Your task to perform on an android device: Search for Mexican restaurants on Maps Image 0: 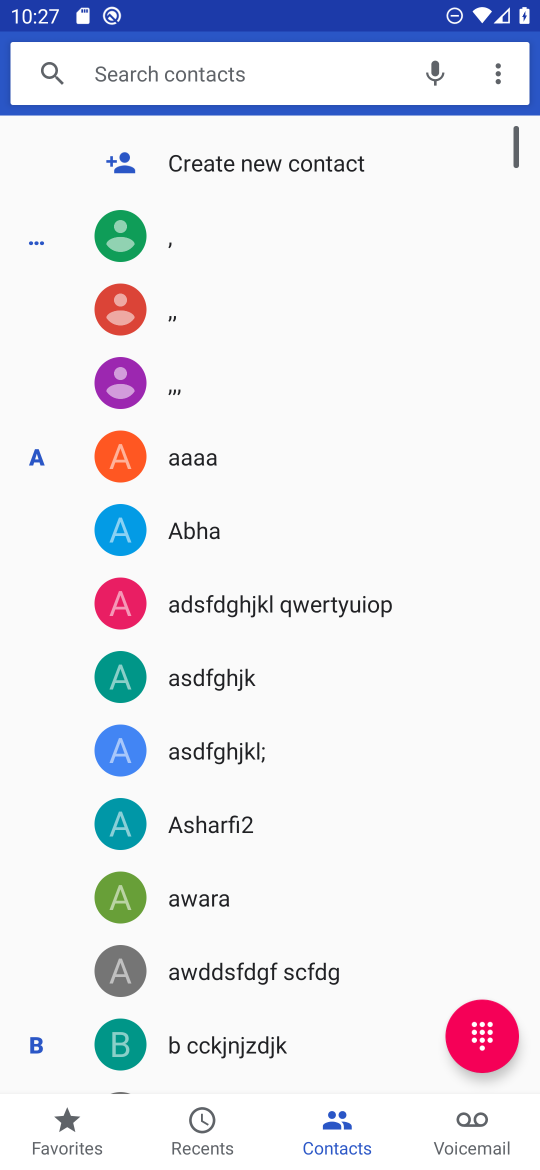
Step 0: press home button
Your task to perform on an android device: Search for Mexican restaurants on Maps Image 1: 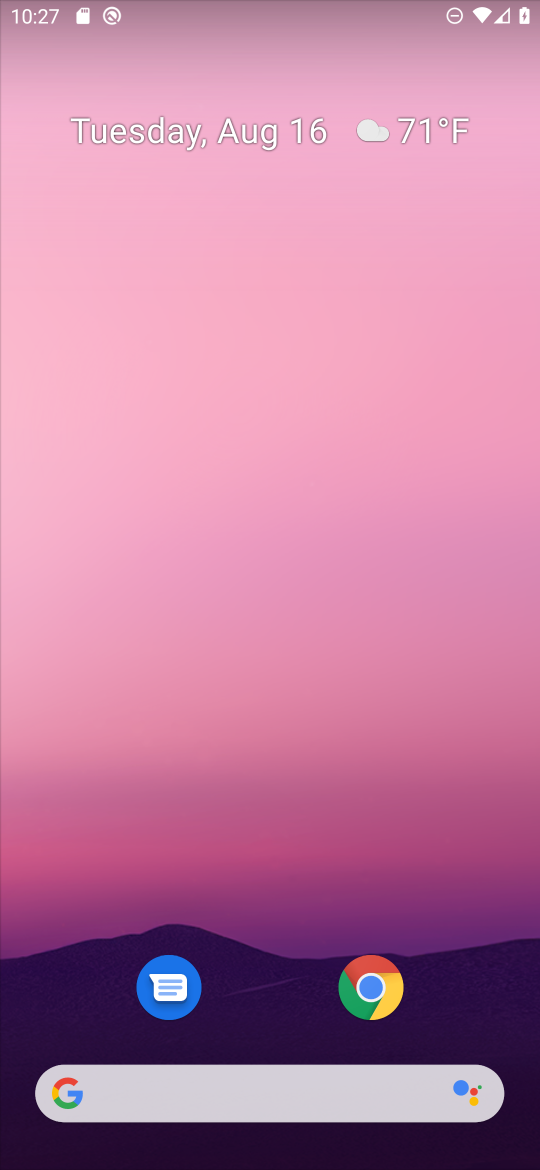
Step 1: click (140, 1102)
Your task to perform on an android device: Search for Mexican restaurants on Maps Image 2: 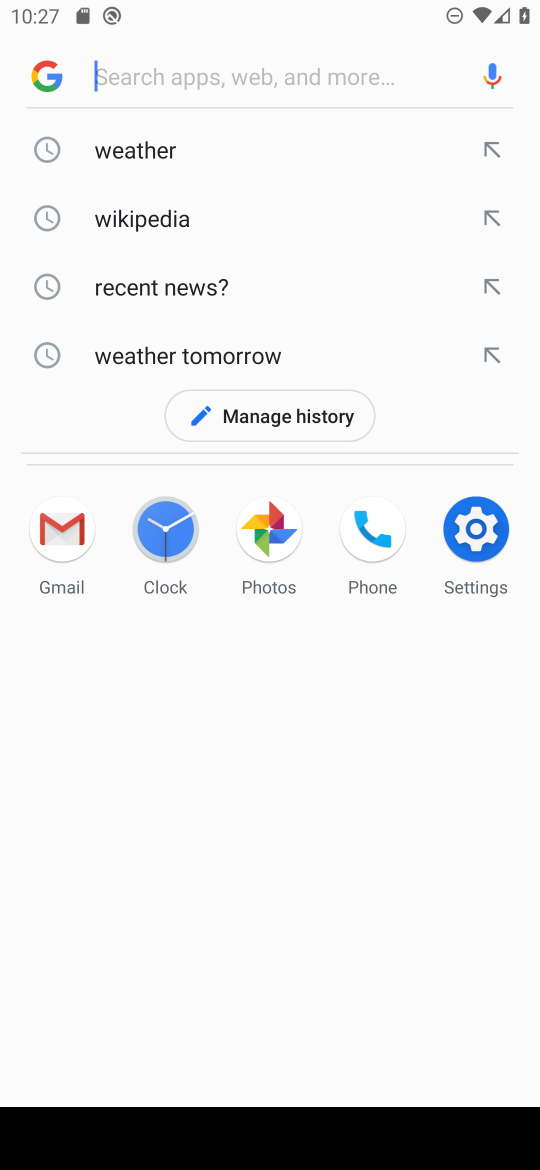
Step 2: type "Mexican restaurants"
Your task to perform on an android device: Search for Mexican restaurants on Maps Image 3: 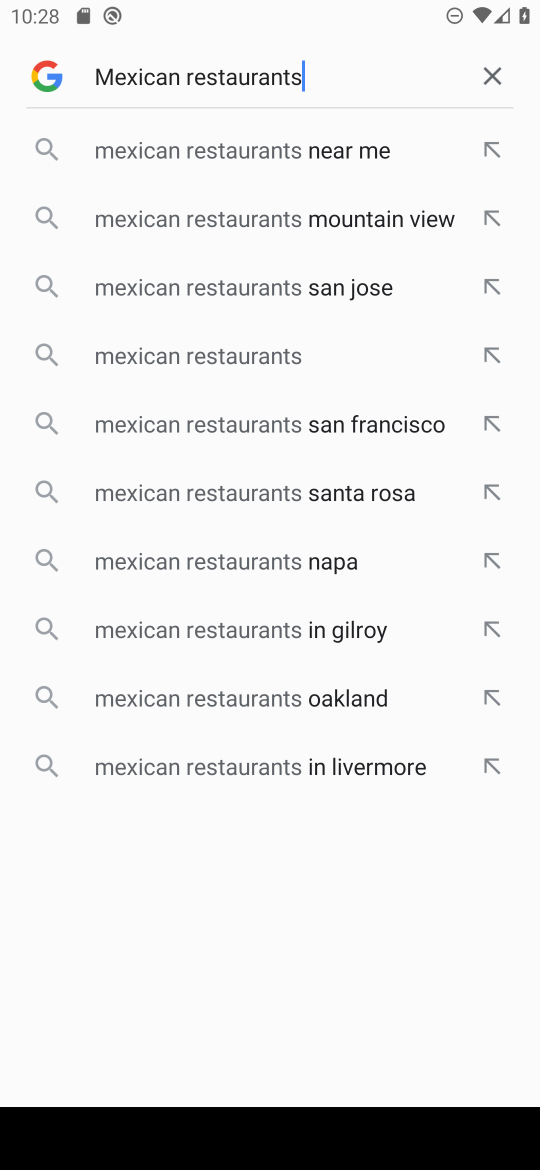
Step 3: type ""
Your task to perform on an android device: Search for Mexican restaurants on Maps Image 4: 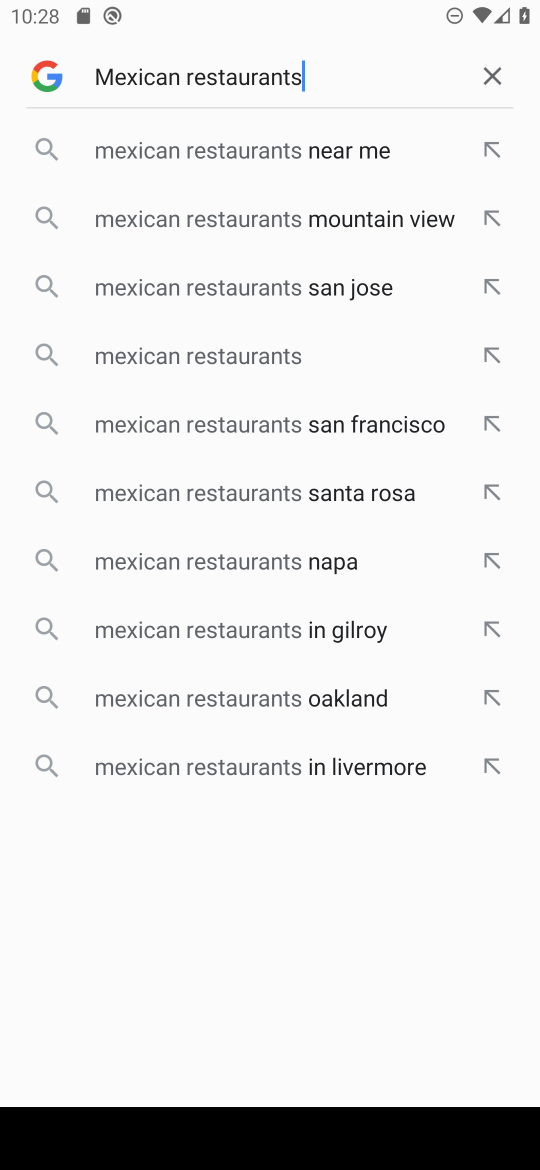
Step 4: click (220, 367)
Your task to perform on an android device: Search for Mexican restaurants on Maps Image 5: 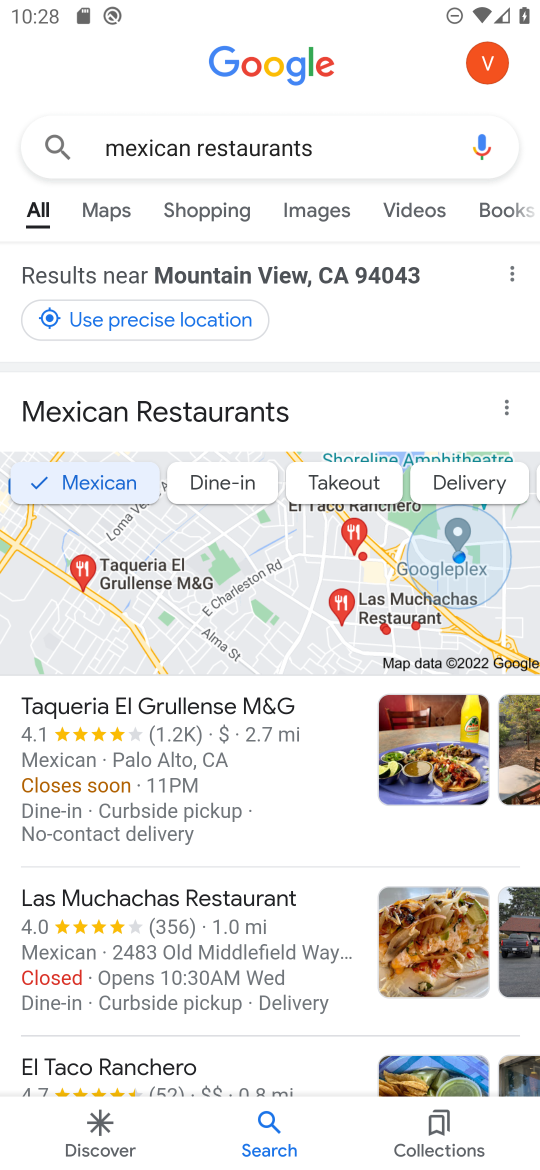
Step 5: task complete